Your task to perform on an android device: Search for sushi restaurants on Maps Image 0: 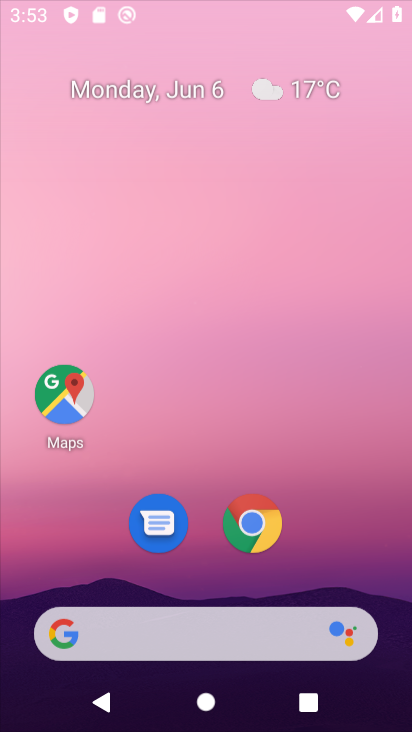
Step 0: press home button
Your task to perform on an android device: Search for sushi restaurants on Maps Image 1: 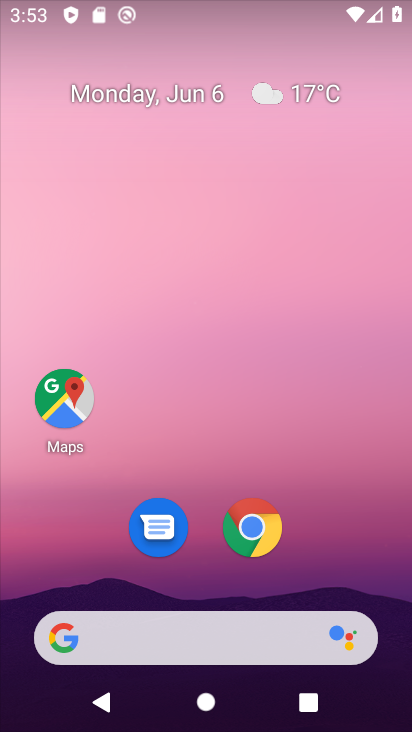
Step 1: click (69, 405)
Your task to perform on an android device: Search for sushi restaurants on Maps Image 2: 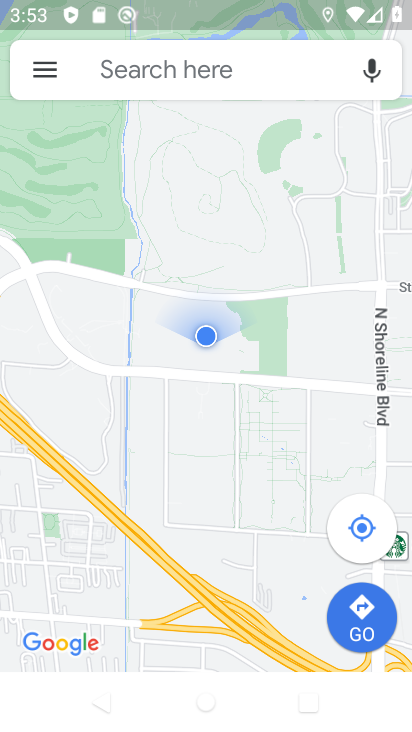
Step 2: click (160, 72)
Your task to perform on an android device: Search for sushi restaurants on Maps Image 3: 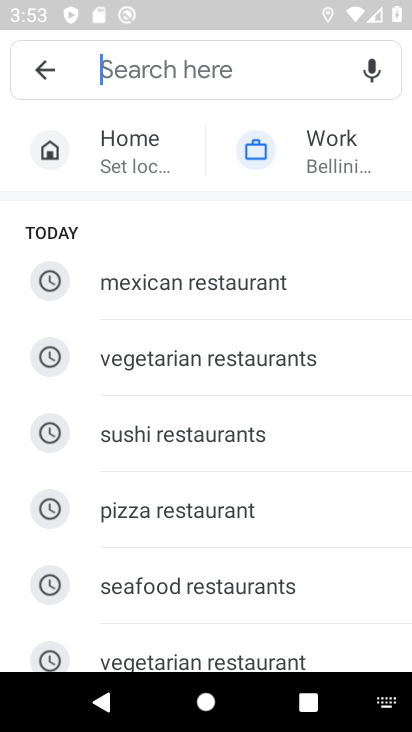
Step 3: click (184, 424)
Your task to perform on an android device: Search for sushi restaurants on Maps Image 4: 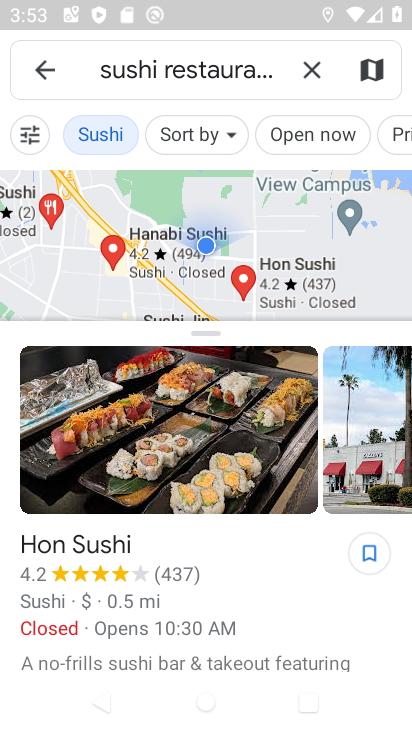
Step 4: task complete